Your task to perform on an android device: change the clock display to analog Image 0: 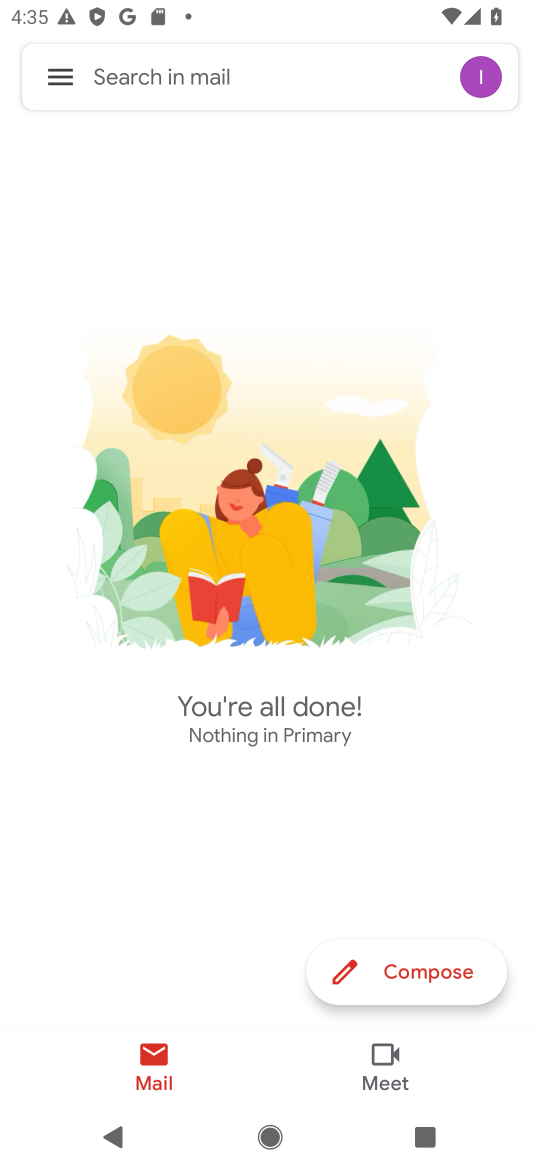
Step 0: press home button
Your task to perform on an android device: change the clock display to analog Image 1: 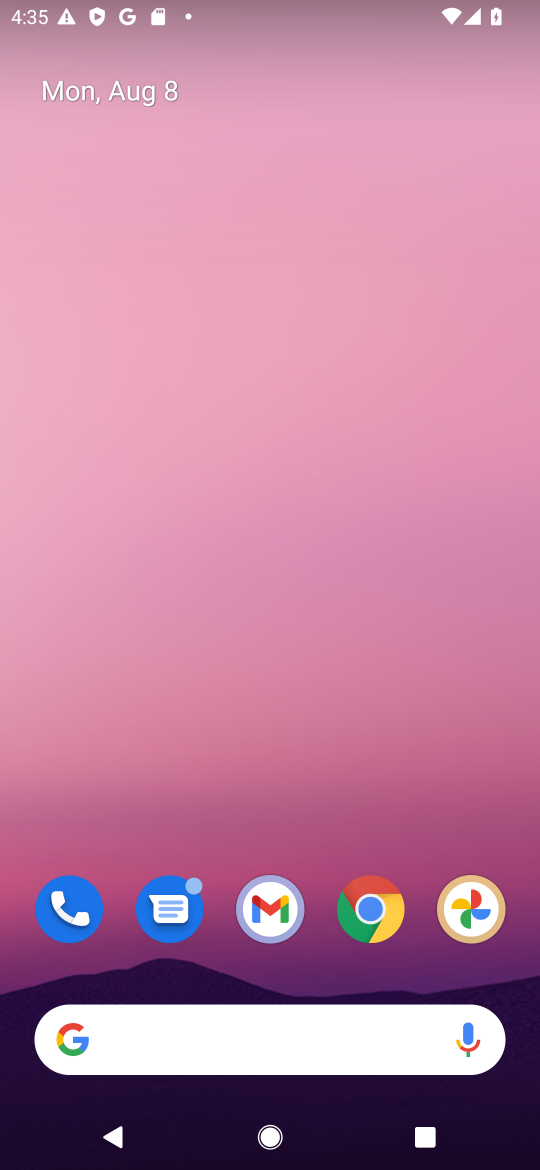
Step 1: drag from (366, 1045) to (298, 316)
Your task to perform on an android device: change the clock display to analog Image 2: 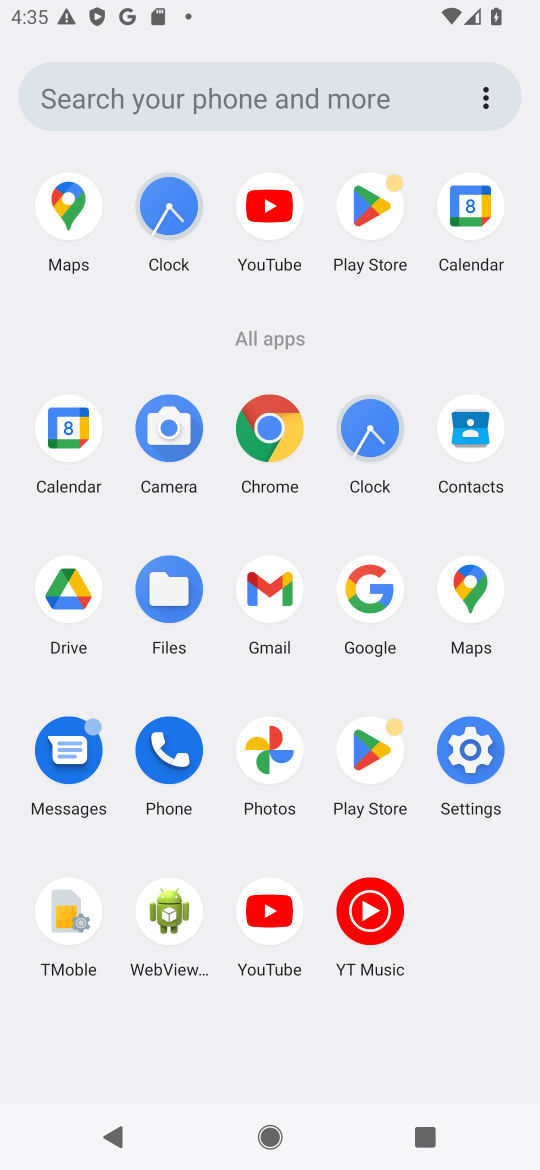
Step 2: click (173, 210)
Your task to perform on an android device: change the clock display to analog Image 3: 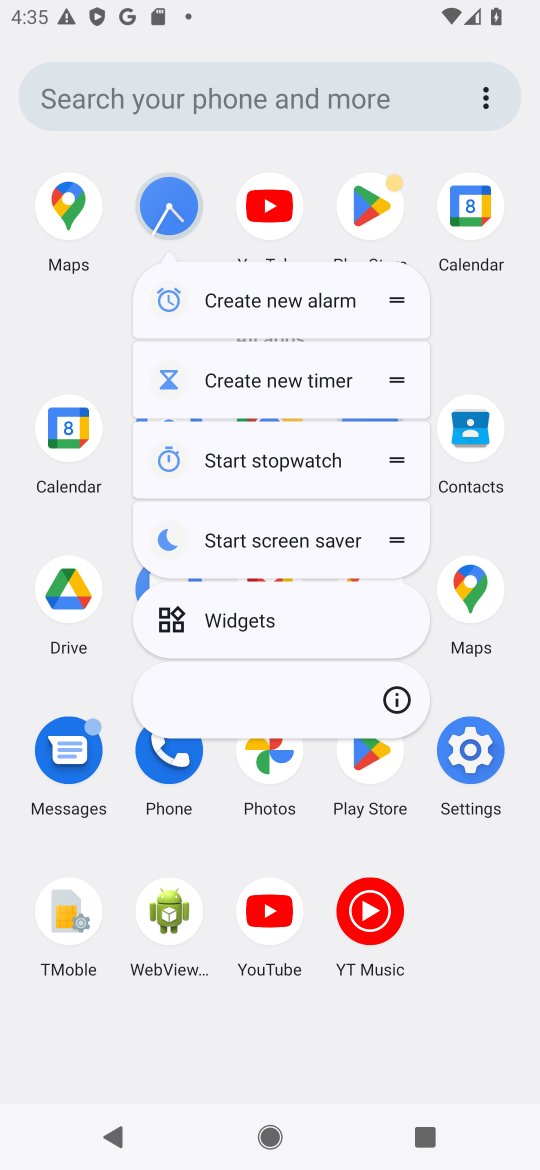
Step 3: click (173, 209)
Your task to perform on an android device: change the clock display to analog Image 4: 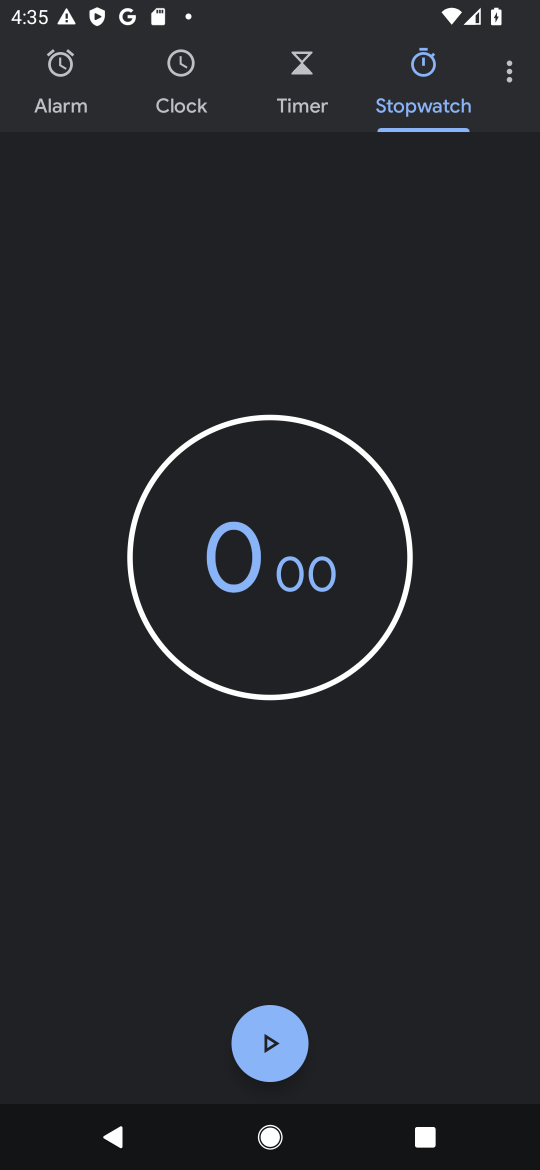
Step 4: click (506, 79)
Your task to perform on an android device: change the clock display to analog Image 5: 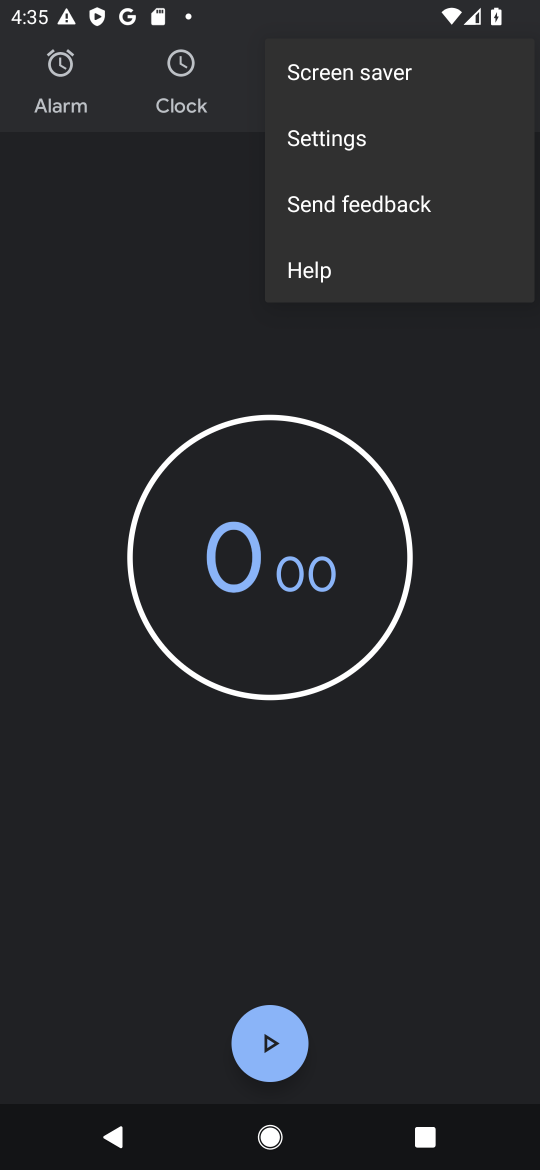
Step 5: click (359, 146)
Your task to perform on an android device: change the clock display to analog Image 6: 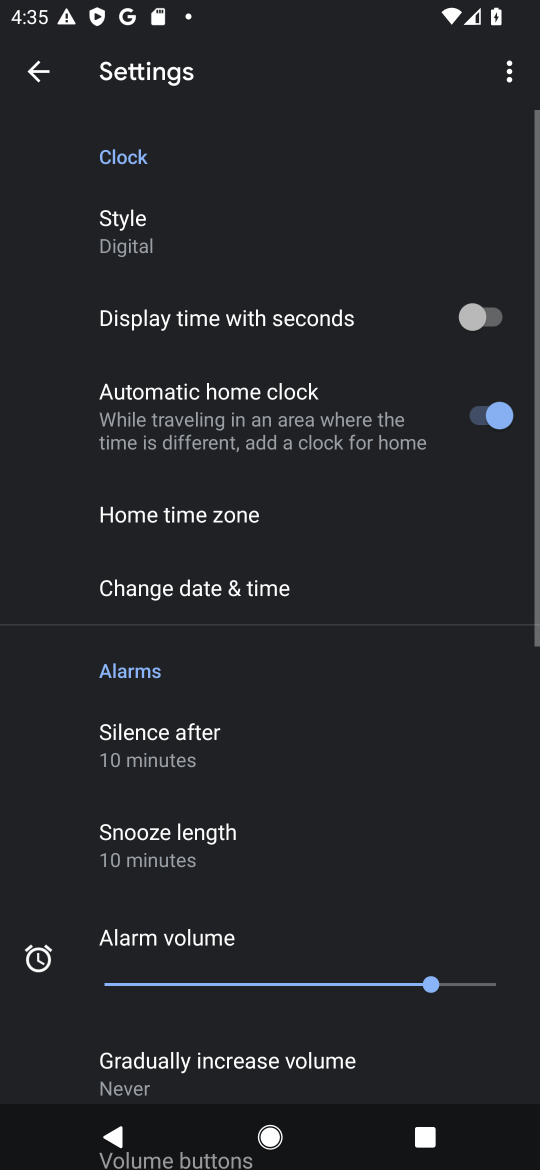
Step 6: click (143, 246)
Your task to perform on an android device: change the clock display to analog Image 7: 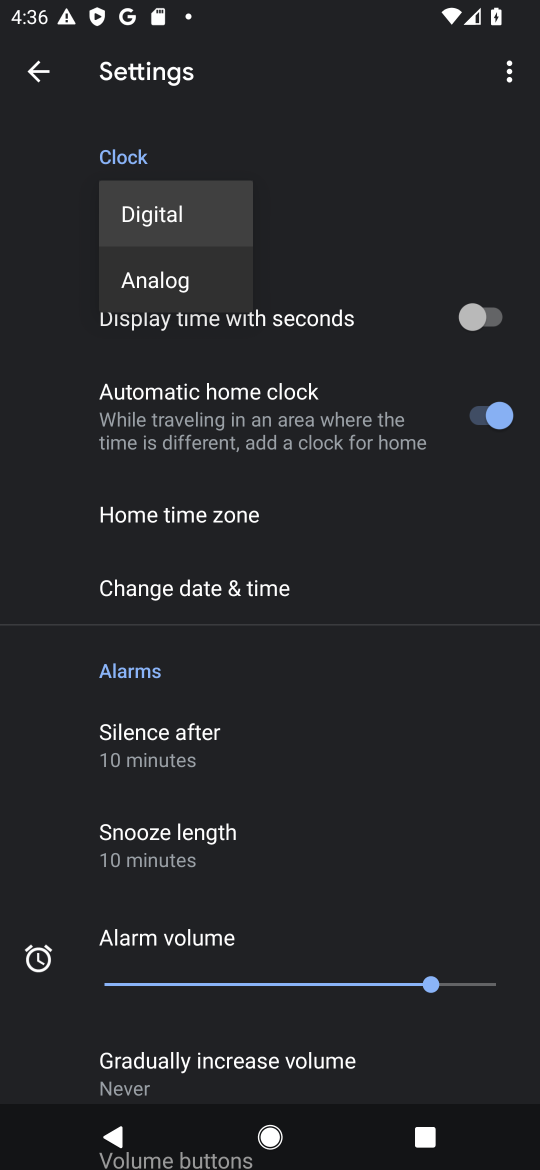
Step 7: click (184, 277)
Your task to perform on an android device: change the clock display to analog Image 8: 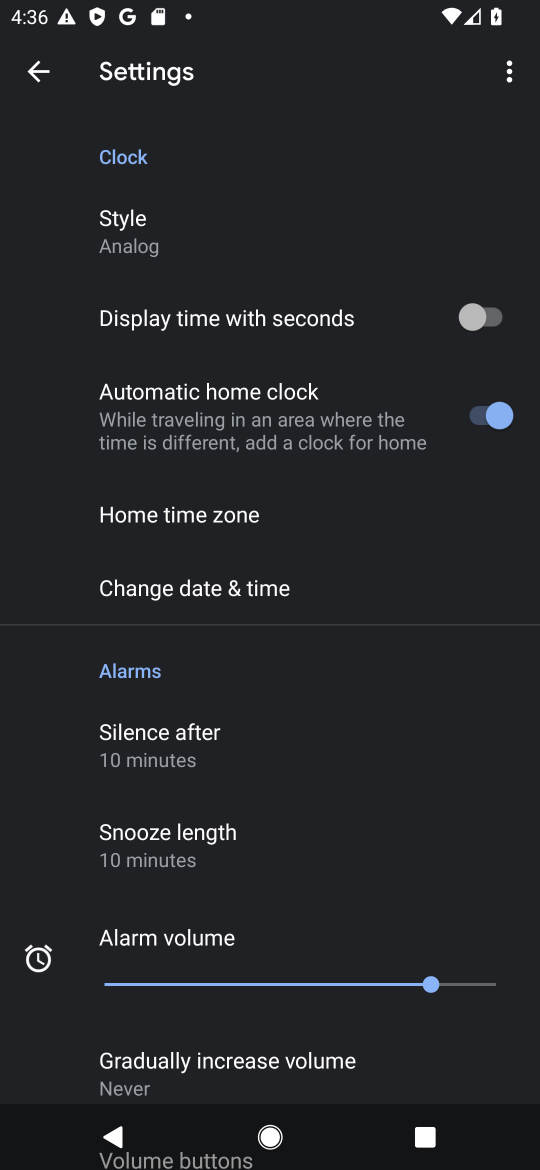
Step 8: task complete